Your task to perform on an android device: turn on bluetooth scan Image 0: 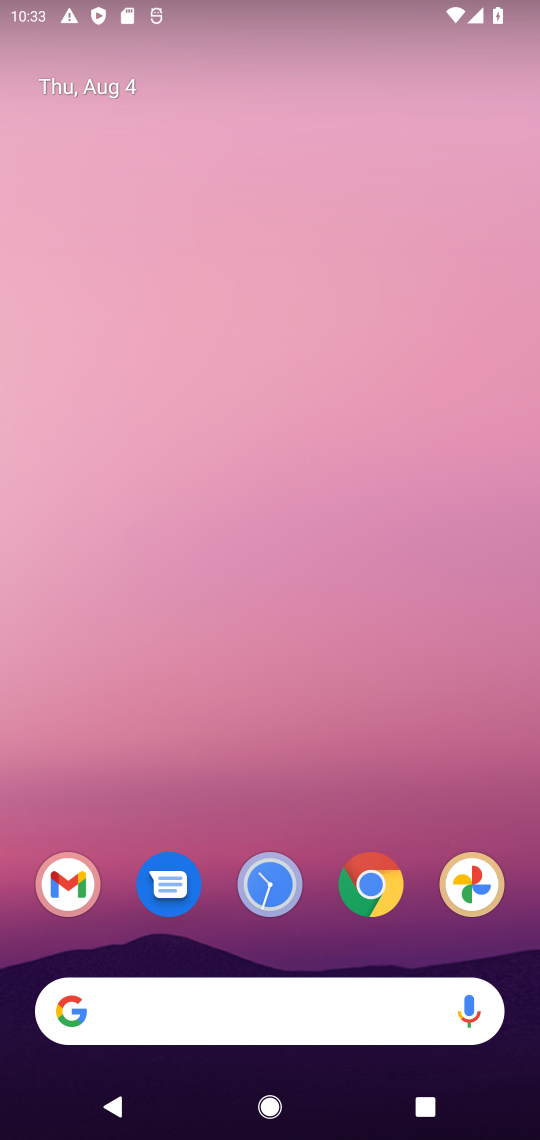
Step 0: drag from (271, 981) to (220, 188)
Your task to perform on an android device: turn on bluetooth scan Image 1: 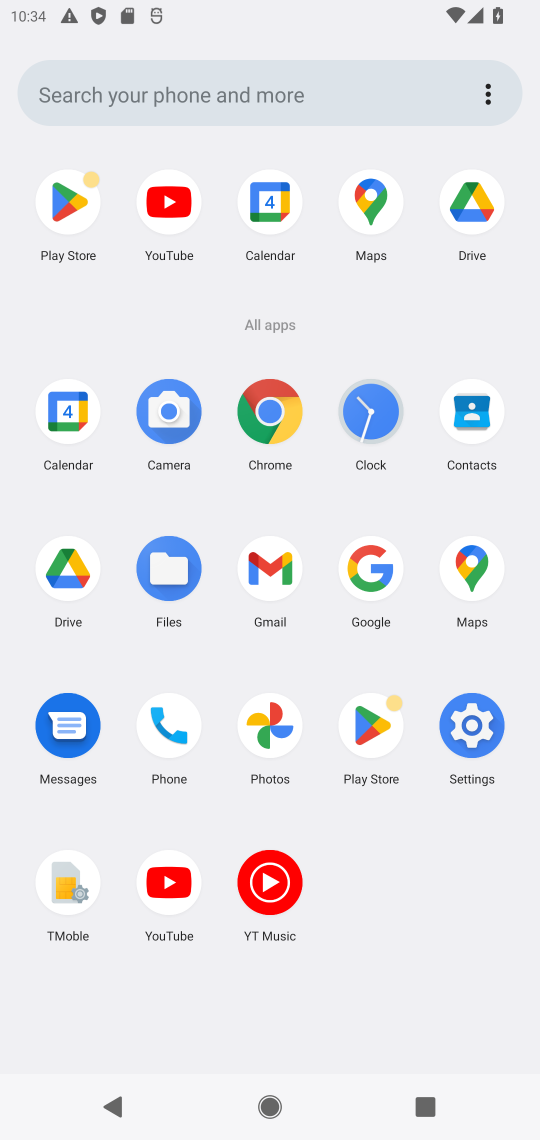
Step 1: click (487, 750)
Your task to perform on an android device: turn on bluetooth scan Image 2: 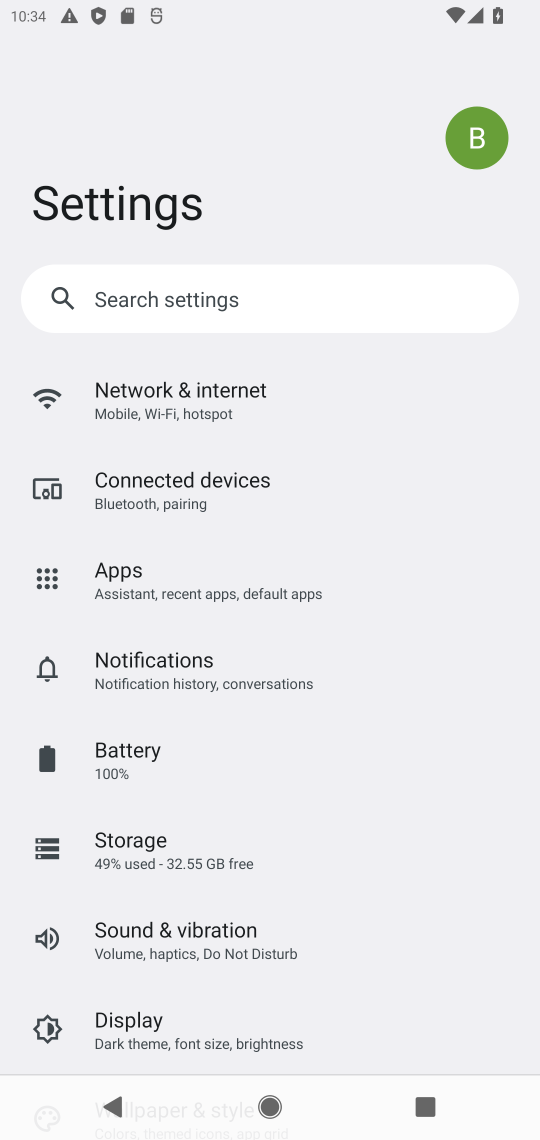
Step 2: drag from (256, 911) to (306, 471)
Your task to perform on an android device: turn on bluetooth scan Image 3: 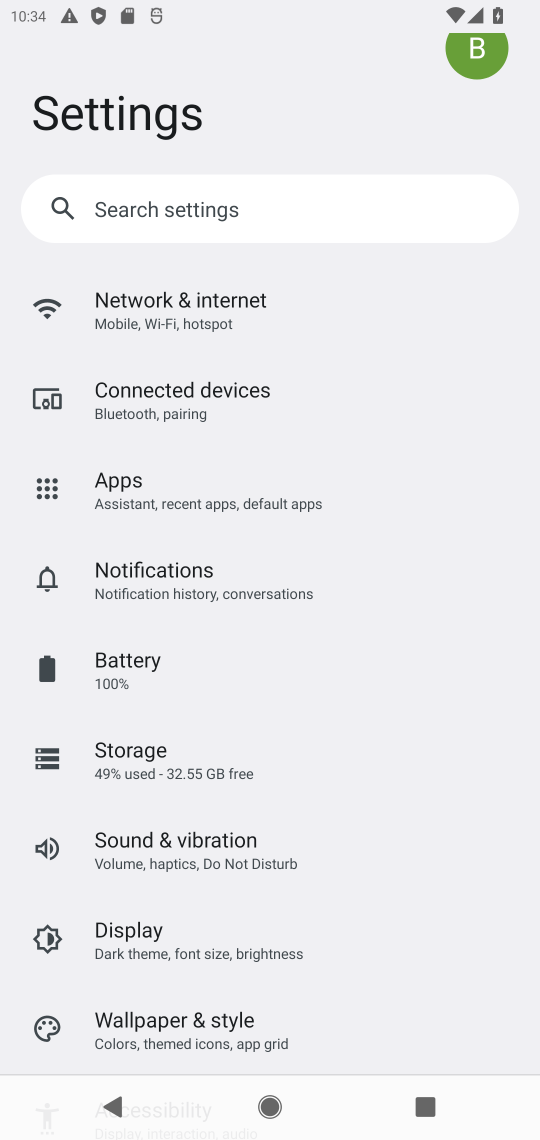
Step 3: drag from (235, 754) to (252, 225)
Your task to perform on an android device: turn on bluetooth scan Image 4: 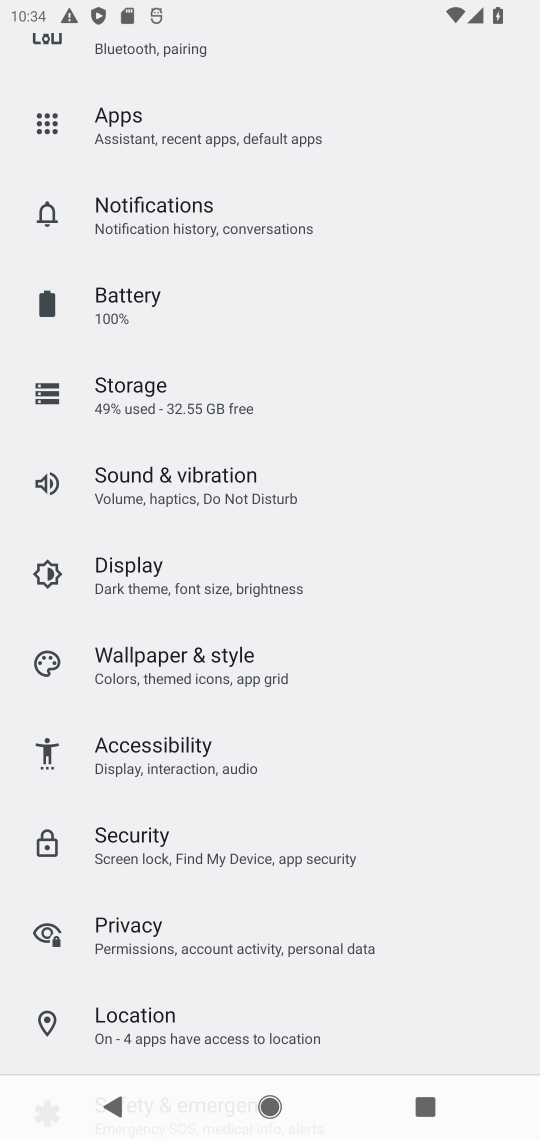
Step 4: drag from (165, 177) to (236, 766)
Your task to perform on an android device: turn on bluetooth scan Image 5: 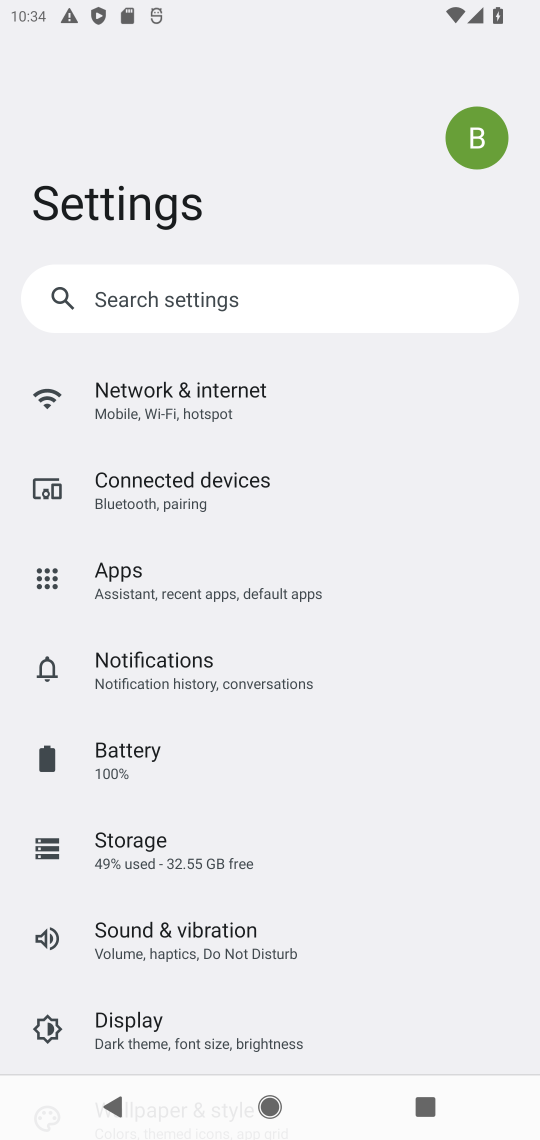
Step 5: drag from (213, 858) to (264, 289)
Your task to perform on an android device: turn on bluetooth scan Image 6: 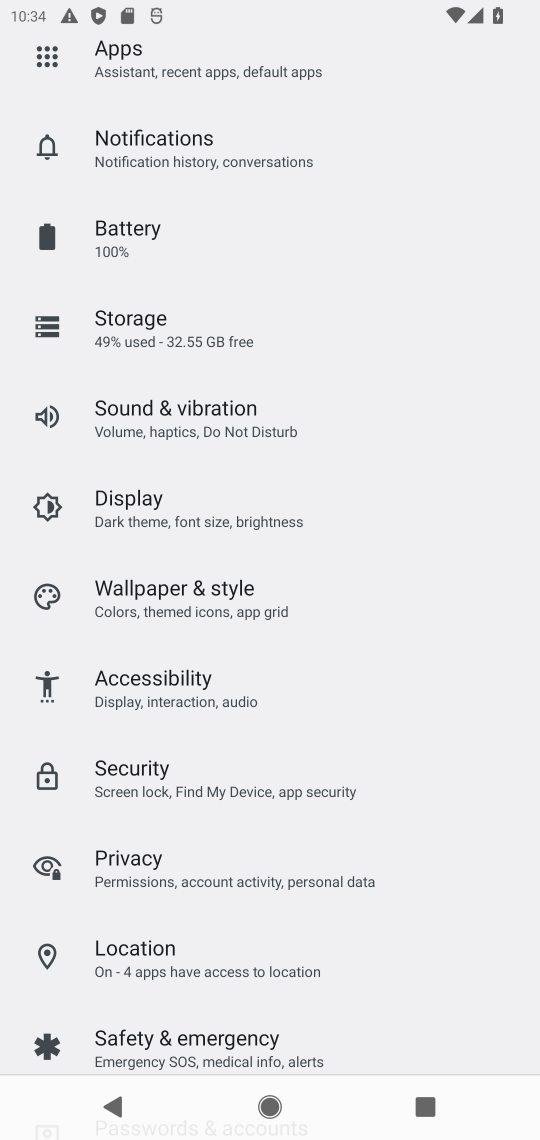
Step 6: click (141, 984)
Your task to perform on an android device: turn on bluetooth scan Image 7: 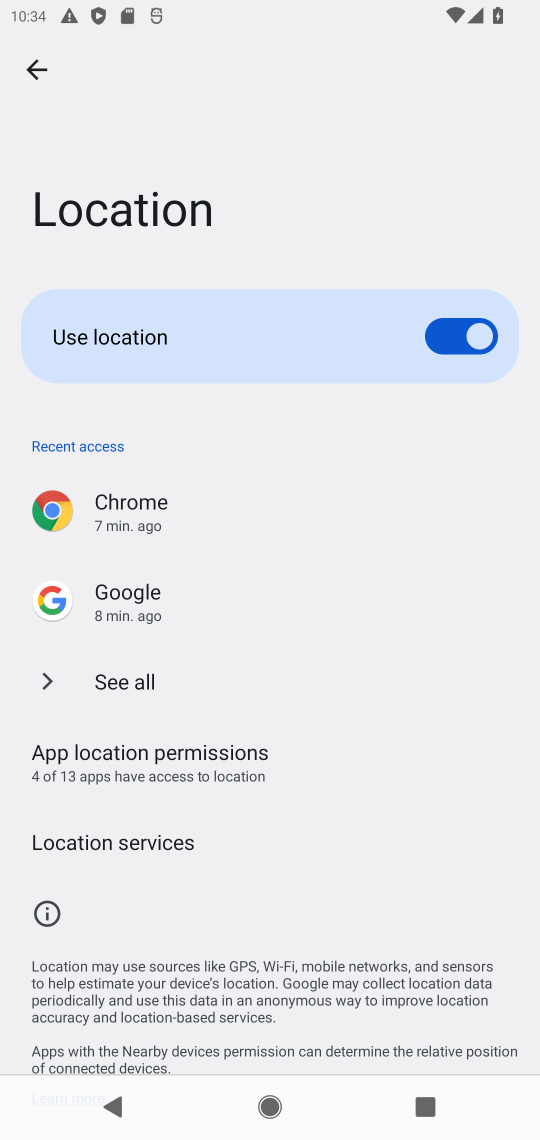
Step 7: click (218, 840)
Your task to perform on an android device: turn on bluetooth scan Image 8: 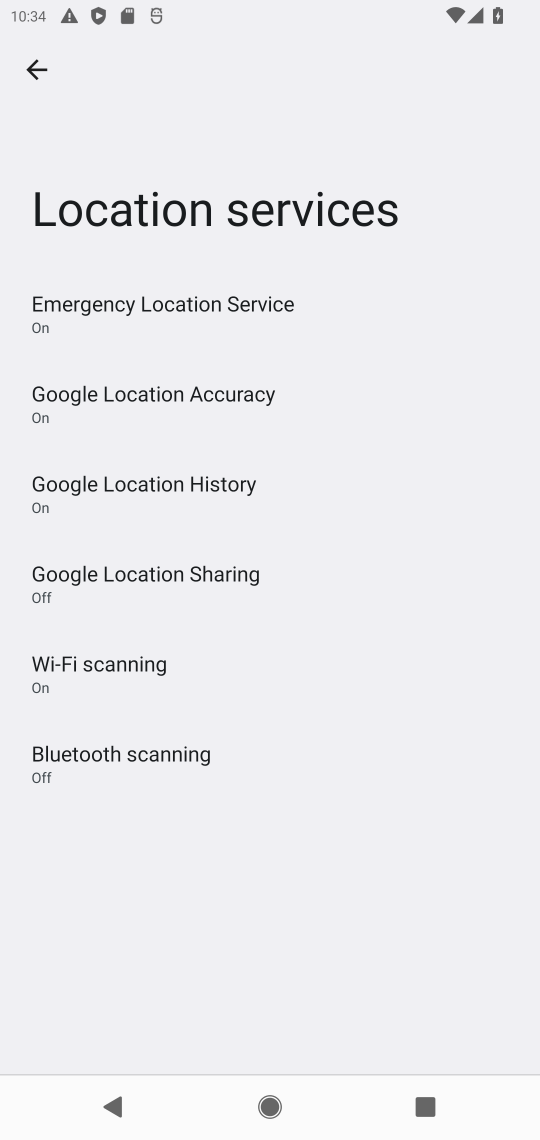
Step 8: click (120, 779)
Your task to perform on an android device: turn on bluetooth scan Image 9: 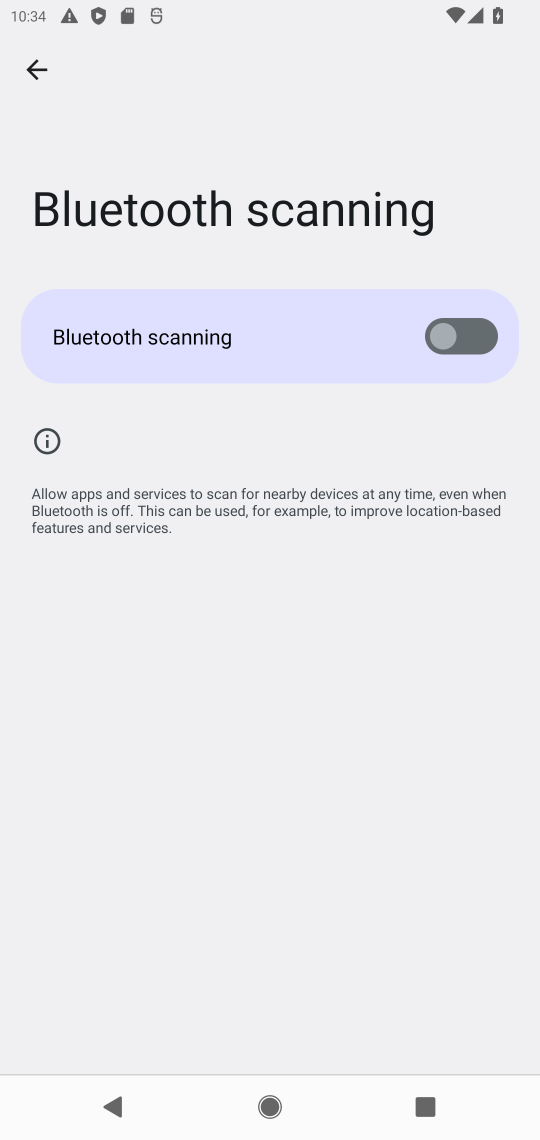
Step 9: click (466, 325)
Your task to perform on an android device: turn on bluetooth scan Image 10: 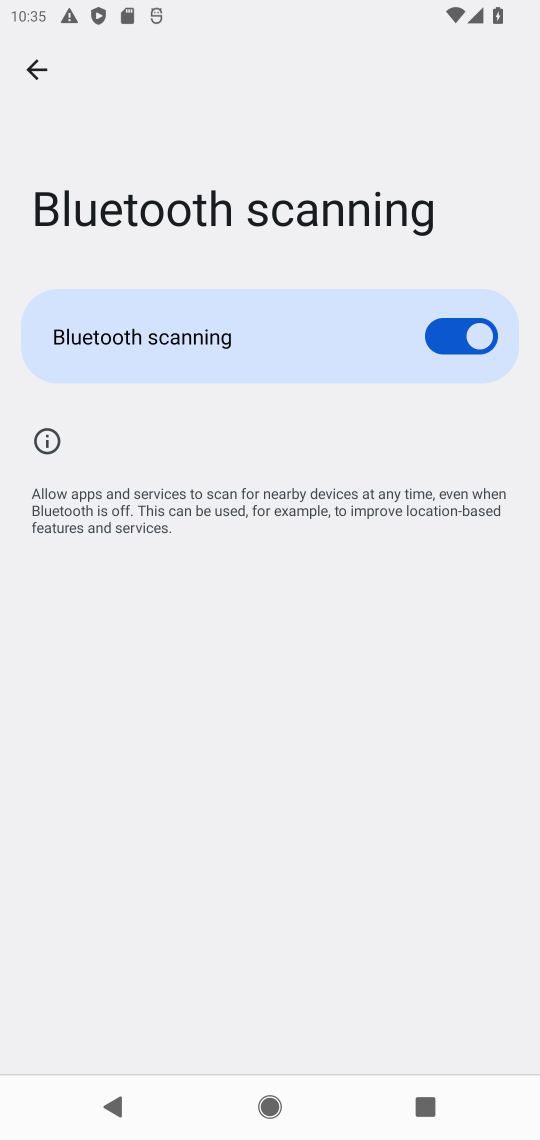
Step 10: task complete